Your task to perform on an android device: set the timer Image 0: 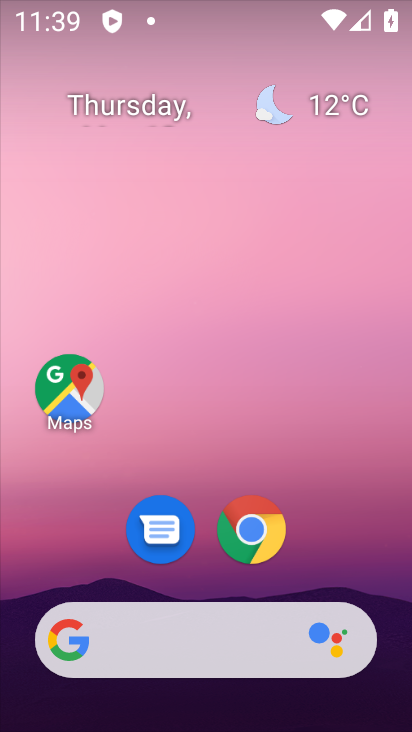
Step 0: click (353, 404)
Your task to perform on an android device: set the timer Image 1: 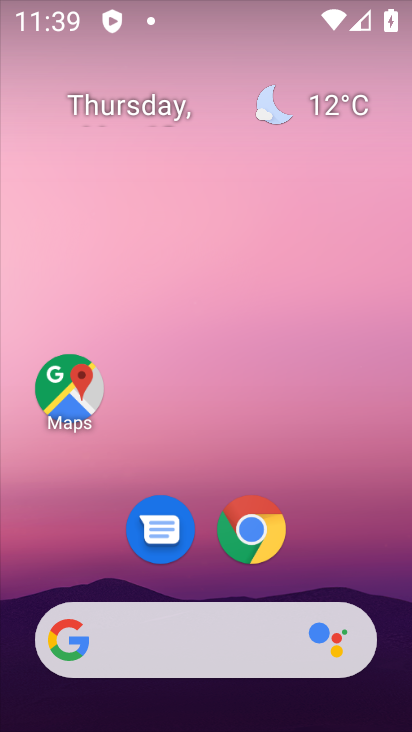
Step 1: drag from (363, 557) to (350, 196)
Your task to perform on an android device: set the timer Image 2: 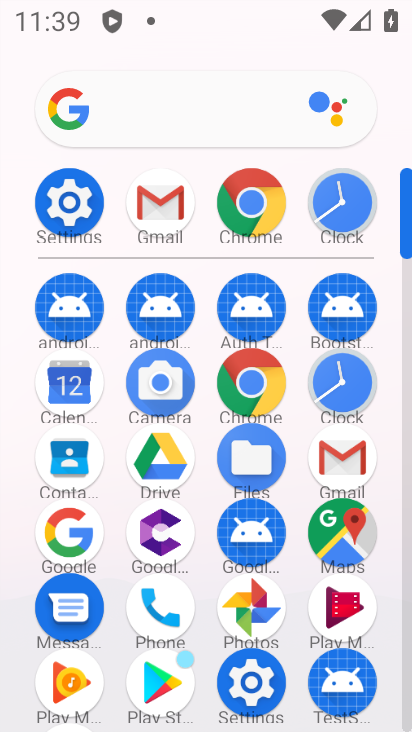
Step 2: drag from (151, 559) to (185, 258)
Your task to perform on an android device: set the timer Image 3: 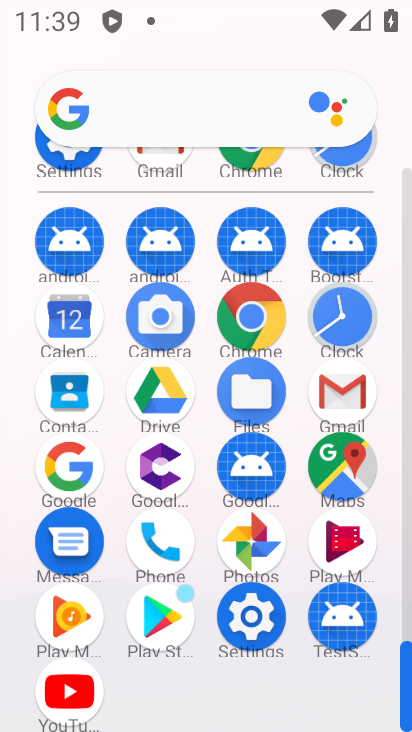
Step 3: click (68, 298)
Your task to perform on an android device: set the timer Image 4: 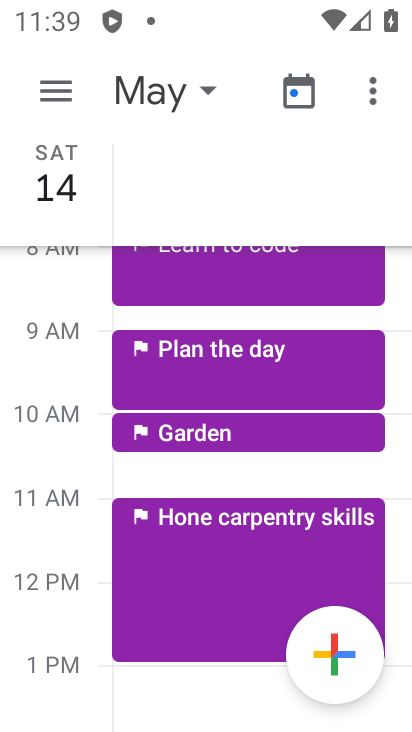
Step 4: press back button
Your task to perform on an android device: set the timer Image 5: 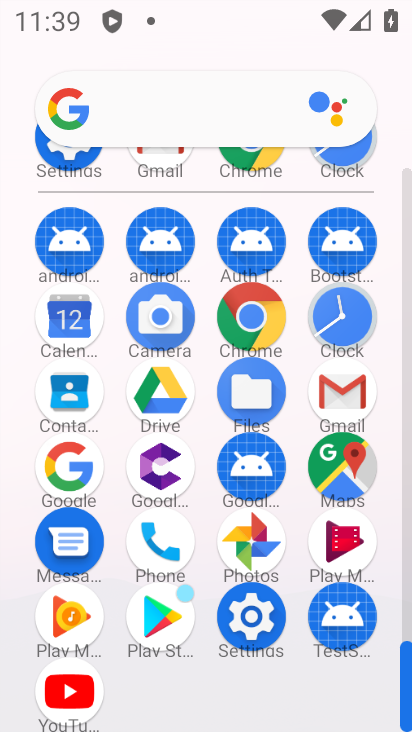
Step 5: click (330, 314)
Your task to perform on an android device: set the timer Image 6: 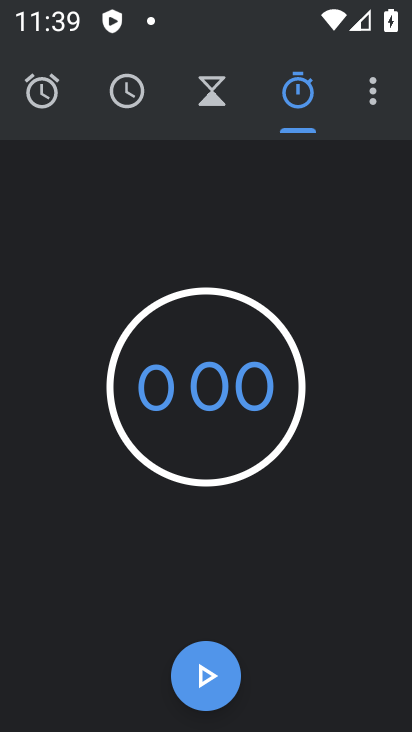
Step 6: click (126, 83)
Your task to perform on an android device: set the timer Image 7: 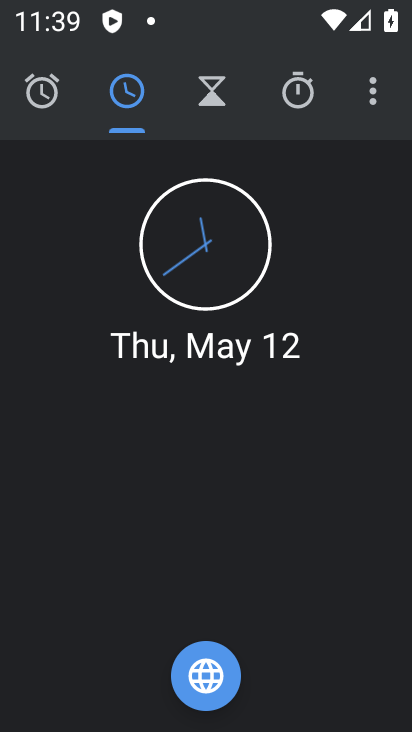
Step 7: click (216, 93)
Your task to perform on an android device: set the timer Image 8: 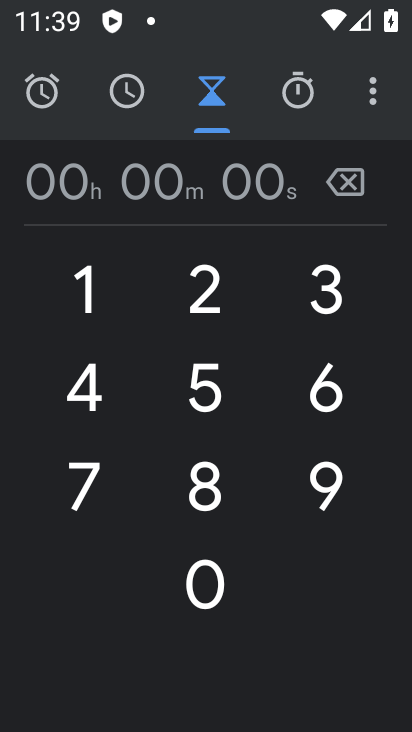
Step 8: click (115, 76)
Your task to perform on an android device: set the timer Image 9: 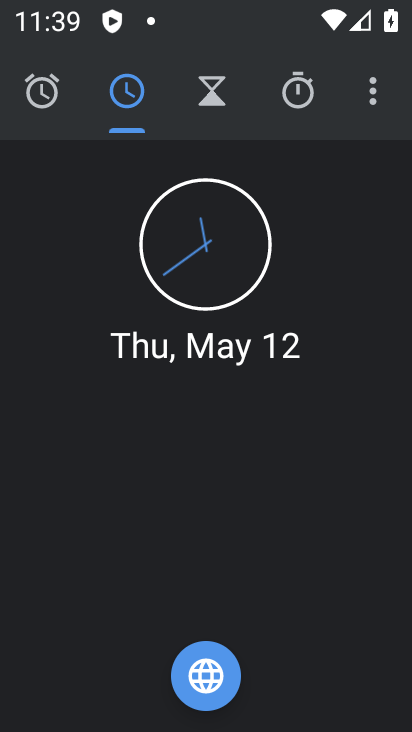
Step 9: click (192, 75)
Your task to perform on an android device: set the timer Image 10: 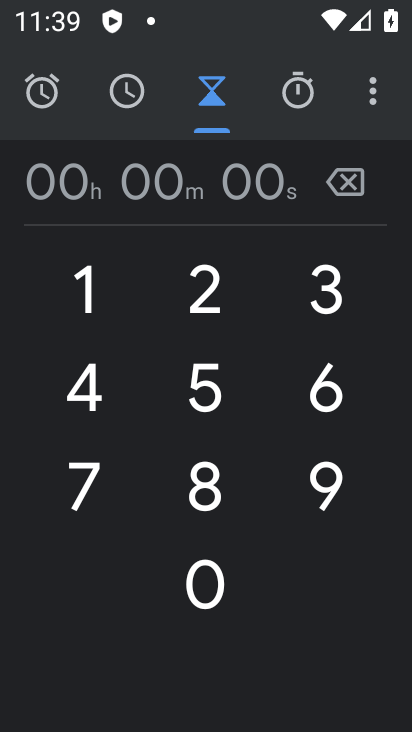
Step 10: click (269, 177)
Your task to perform on an android device: set the timer Image 11: 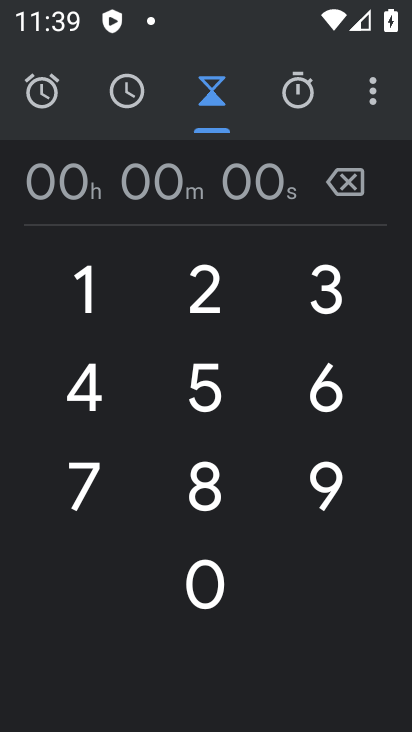
Step 11: type "9"
Your task to perform on an android device: set the timer Image 12: 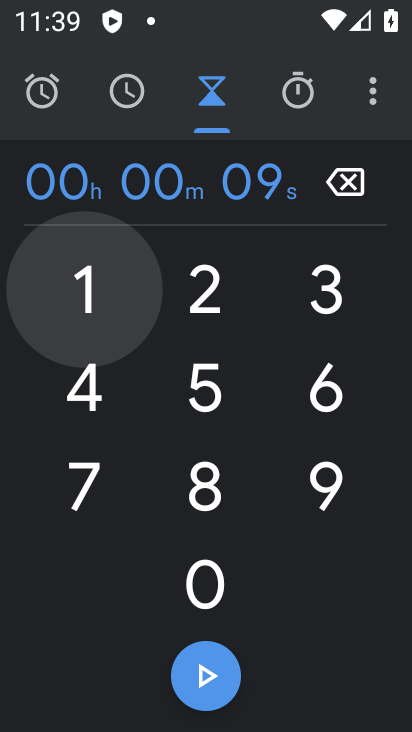
Step 12: type "00"
Your task to perform on an android device: set the timer Image 13: 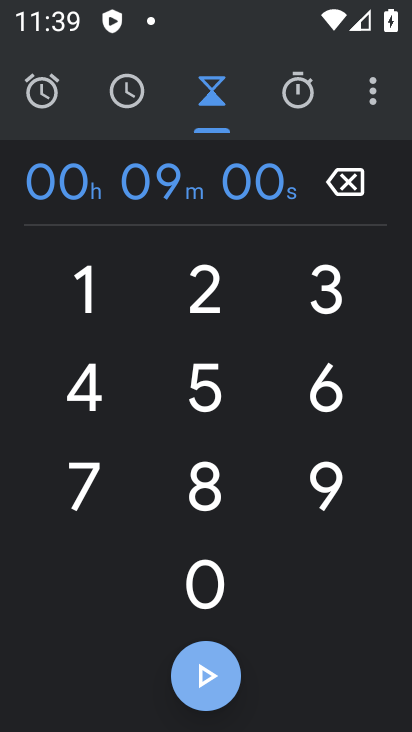
Step 13: type "09"
Your task to perform on an android device: set the timer Image 14: 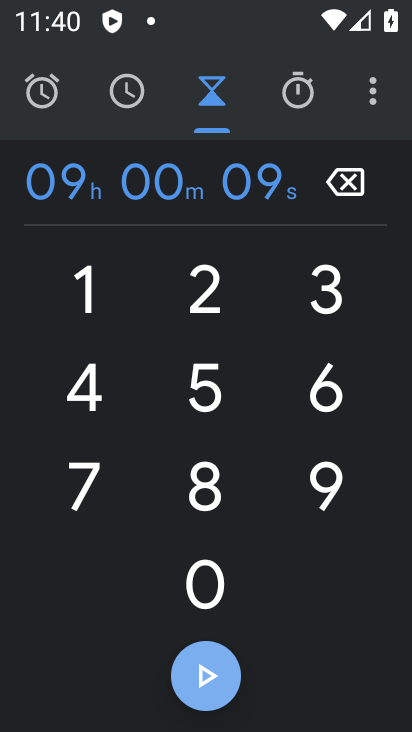
Step 14: task complete